Your task to perform on an android device: Go to sound settings Image 0: 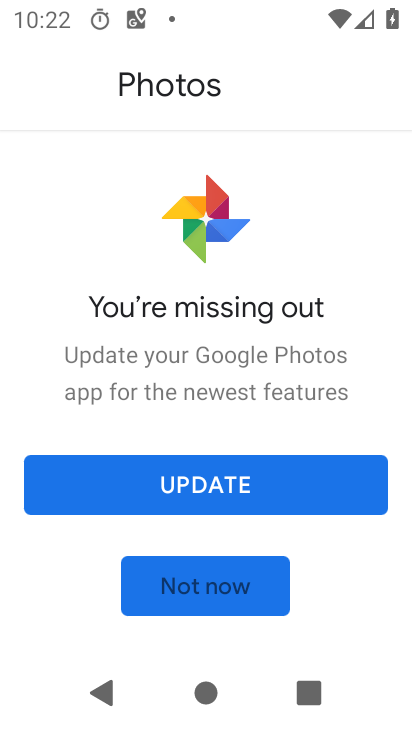
Step 0: press home button
Your task to perform on an android device: Go to sound settings Image 1: 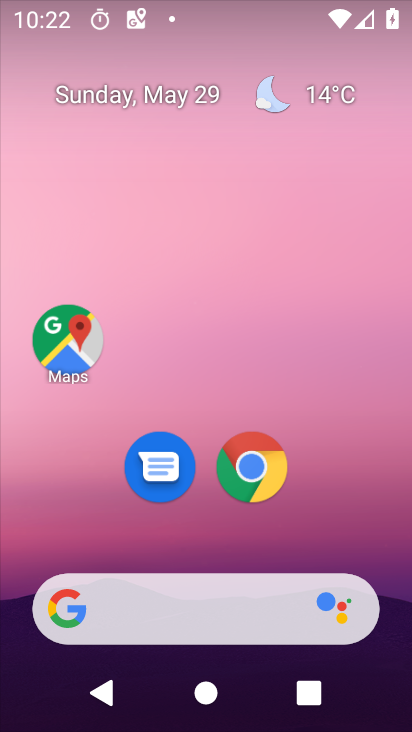
Step 1: drag from (204, 456) to (236, 120)
Your task to perform on an android device: Go to sound settings Image 2: 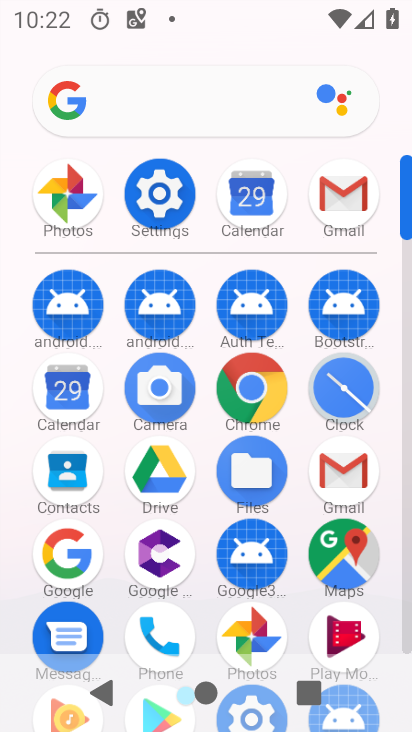
Step 2: click (154, 204)
Your task to perform on an android device: Go to sound settings Image 3: 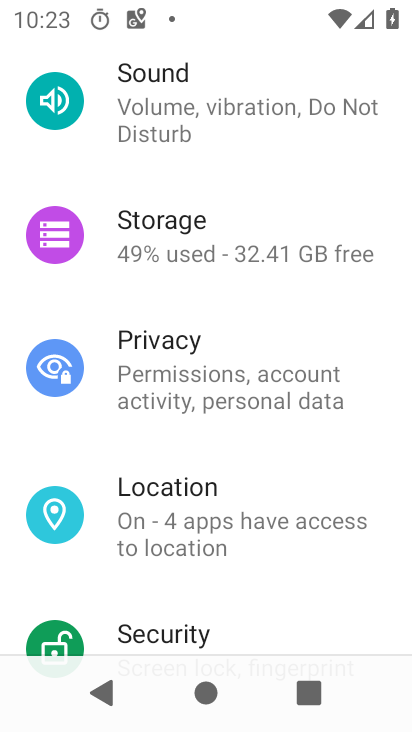
Step 3: click (184, 117)
Your task to perform on an android device: Go to sound settings Image 4: 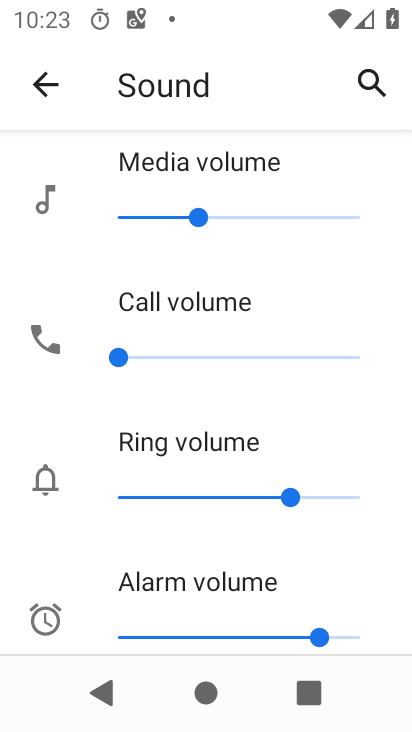
Step 4: task complete